Your task to perform on an android device: Show me productivity apps on the Play Store Image 0: 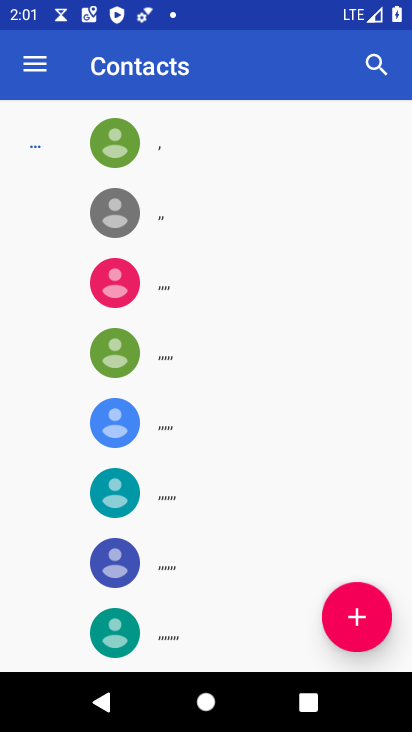
Step 0: press home button
Your task to perform on an android device: Show me productivity apps on the Play Store Image 1: 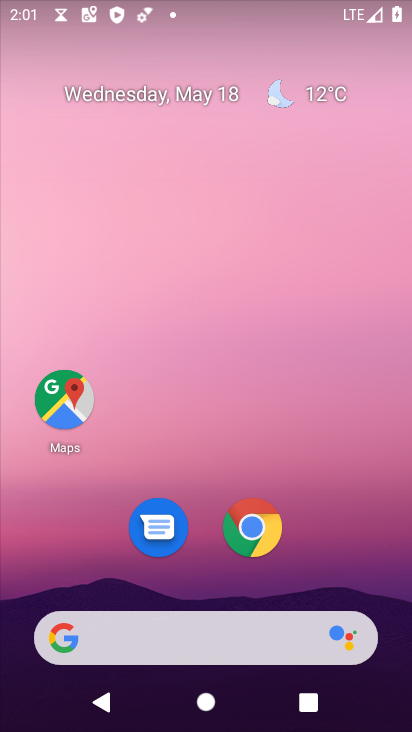
Step 1: drag from (339, 556) to (306, 63)
Your task to perform on an android device: Show me productivity apps on the Play Store Image 2: 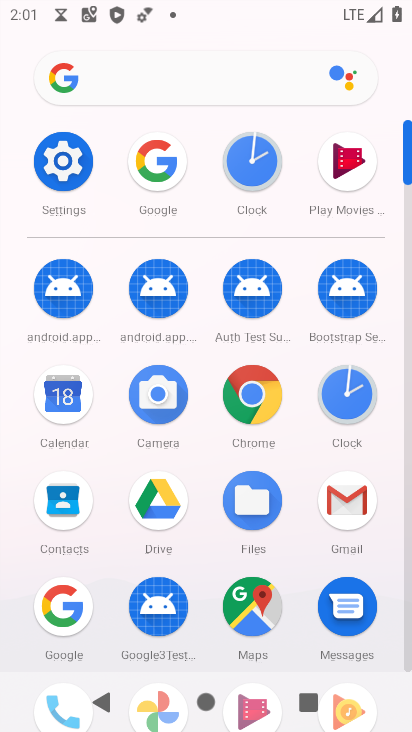
Step 2: drag from (219, 605) to (213, 238)
Your task to perform on an android device: Show me productivity apps on the Play Store Image 3: 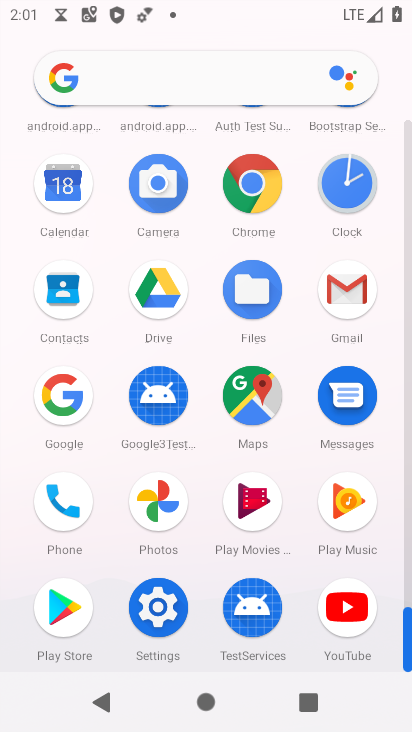
Step 3: click (67, 605)
Your task to perform on an android device: Show me productivity apps on the Play Store Image 4: 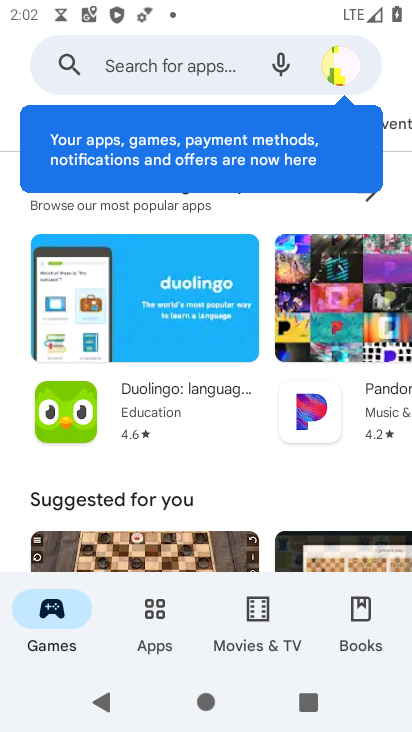
Step 4: click (154, 613)
Your task to perform on an android device: Show me productivity apps on the Play Store Image 5: 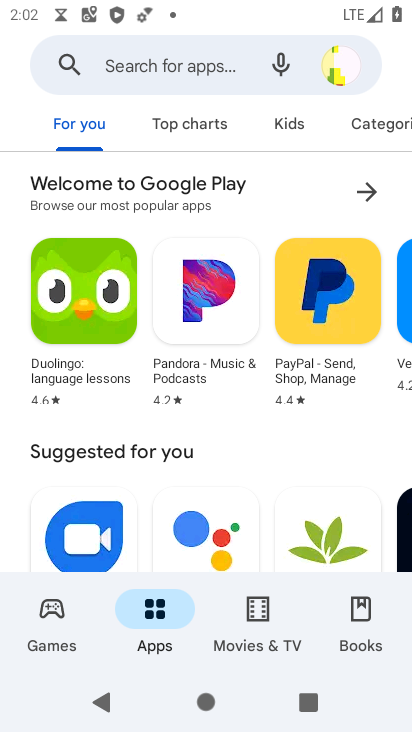
Step 5: click (126, 58)
Your task to perform on an android device: Show me productivity apps on the Play Store Image 6: 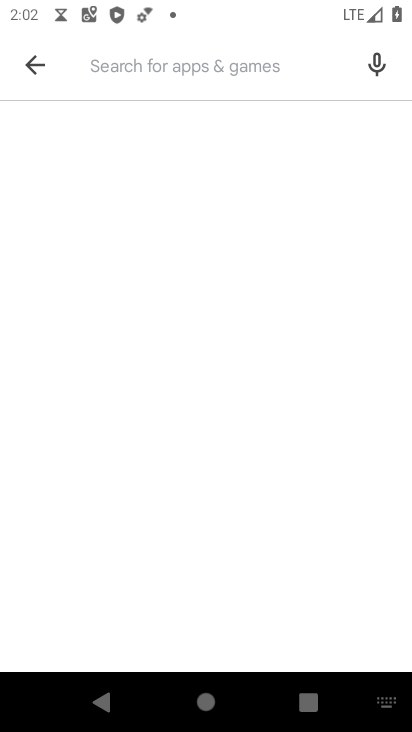
Step 6: type "productivity apps"
Your task to perform on an android device: Show me productivity apps on the Play Store Image 7: 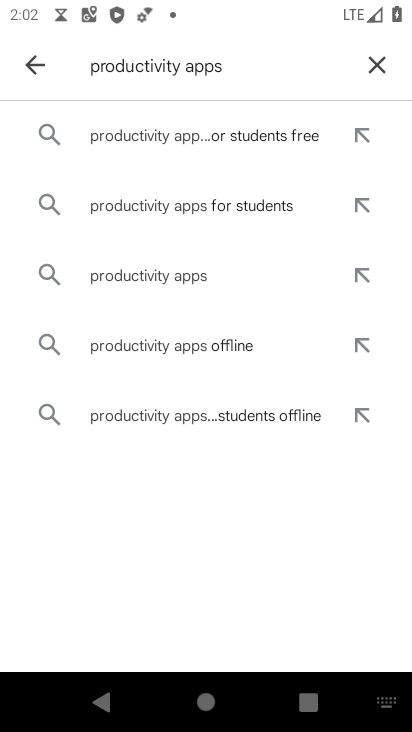
Step 7: click (164, 268)
Your task to perform on an android device: Show me productivity apps on the Play Store Image 8: 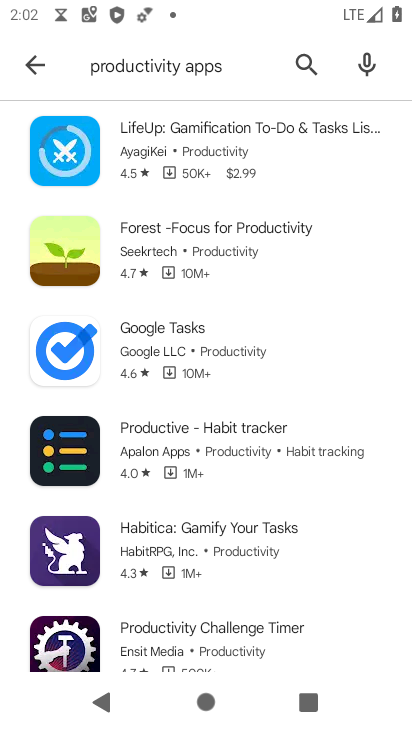
Step 8: task complete